Your task to perform on an android device: toggle javascript in the chrome app Image 0: 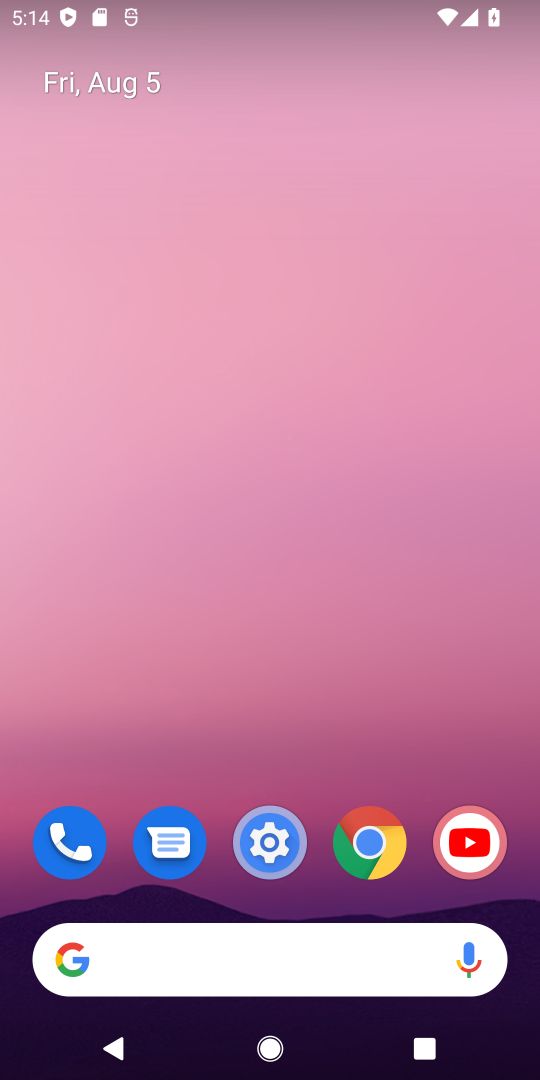
Step 0: press home button
Your task to perform on an android device: toggle javascript in the chrome app Image 1: 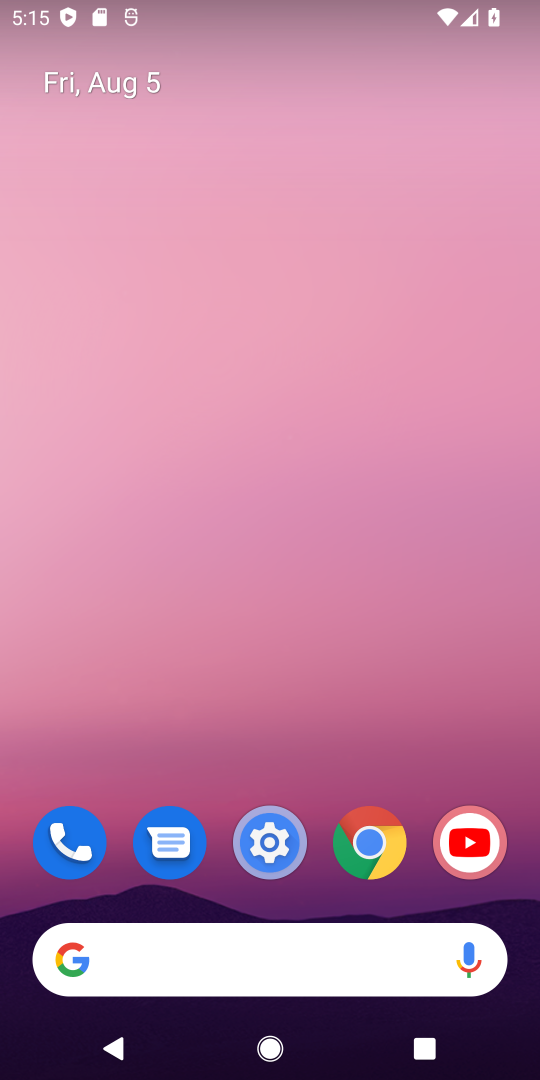
Step 1: click (355, 830)
Your task to perform on an android device: toggle javascript in the chrome app Image 2: 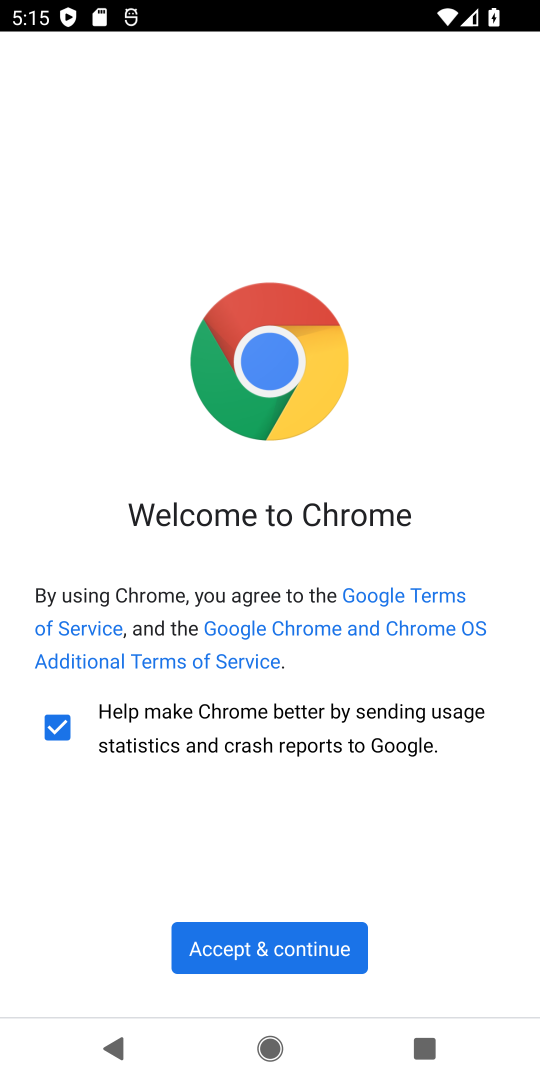
Step 2: click (247, 952)
Your task to perform on an android device: toggle javascript in the chrome app Image 3: 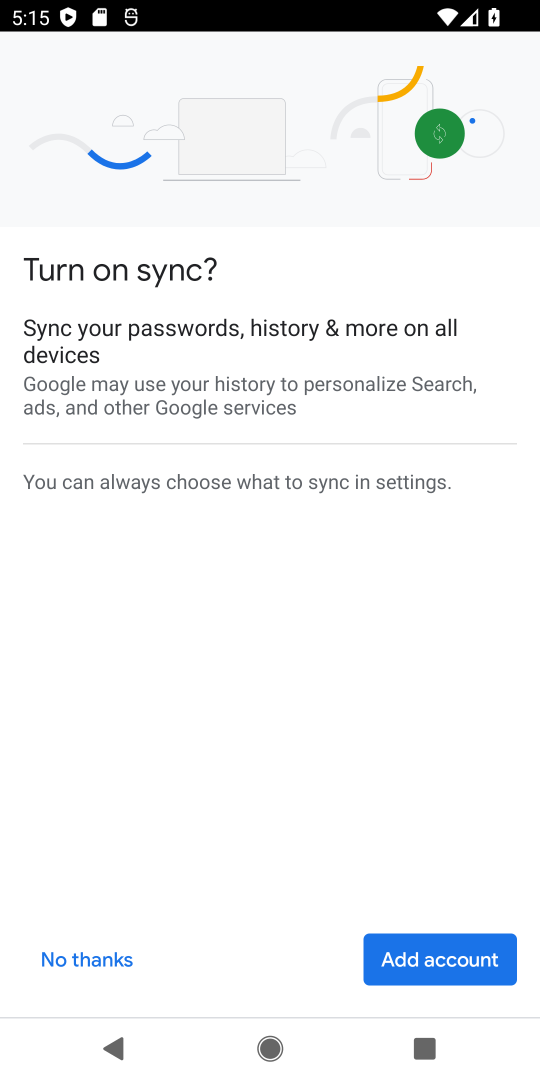
Step 3: click (100, 956)
Your task to perform on an android device: toggle javascript in the chrome app Image 4: 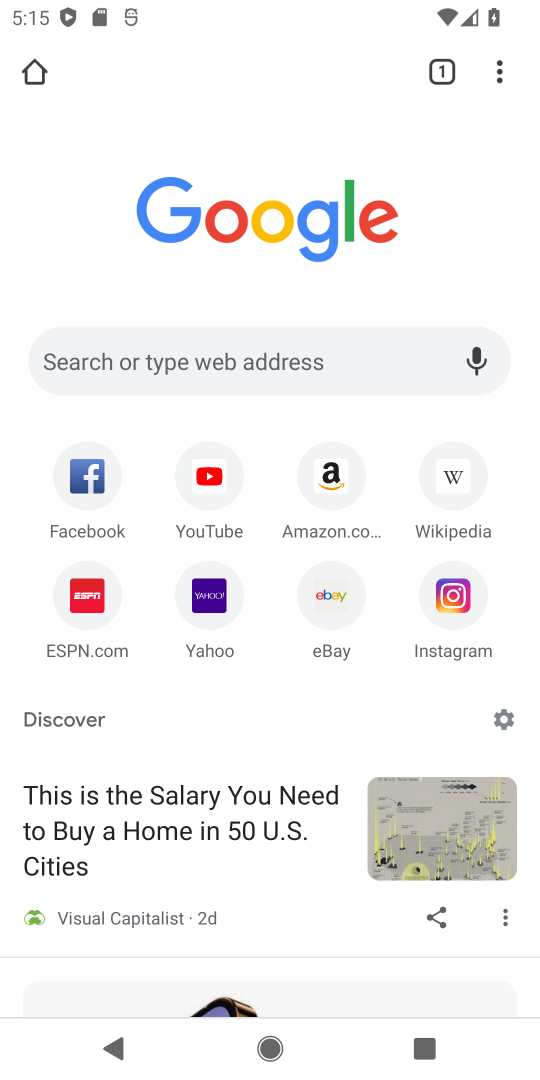
Step 4: drag from (494, 71) to (263, 668)
Your task to perform on an android device: toggle javascript in the chrome app Image 5: 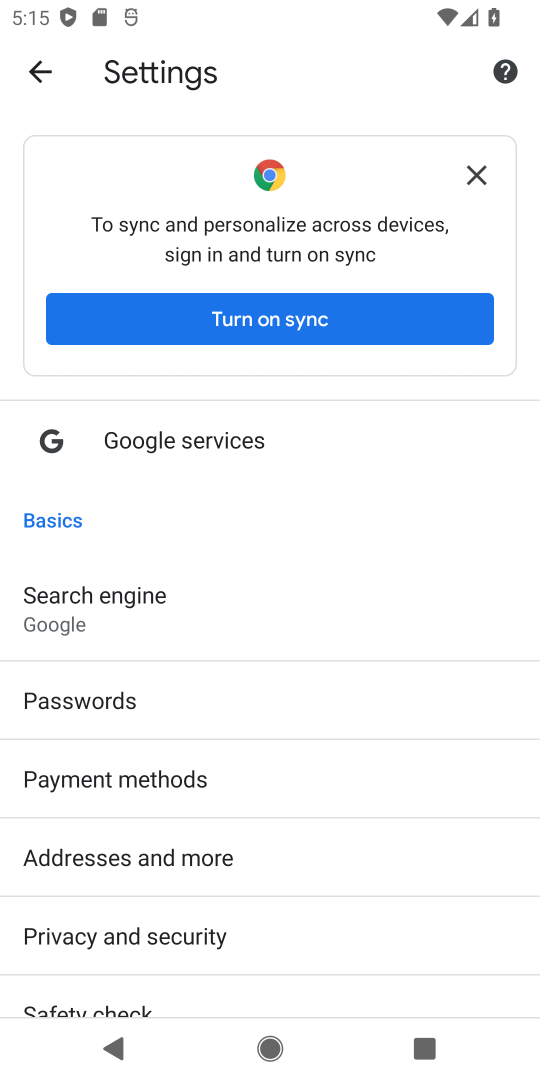
Step 5: drag from (323, 891) to (308, 272)
Your task to perform on an android device: toggle javascript in the chrome app Image 6: 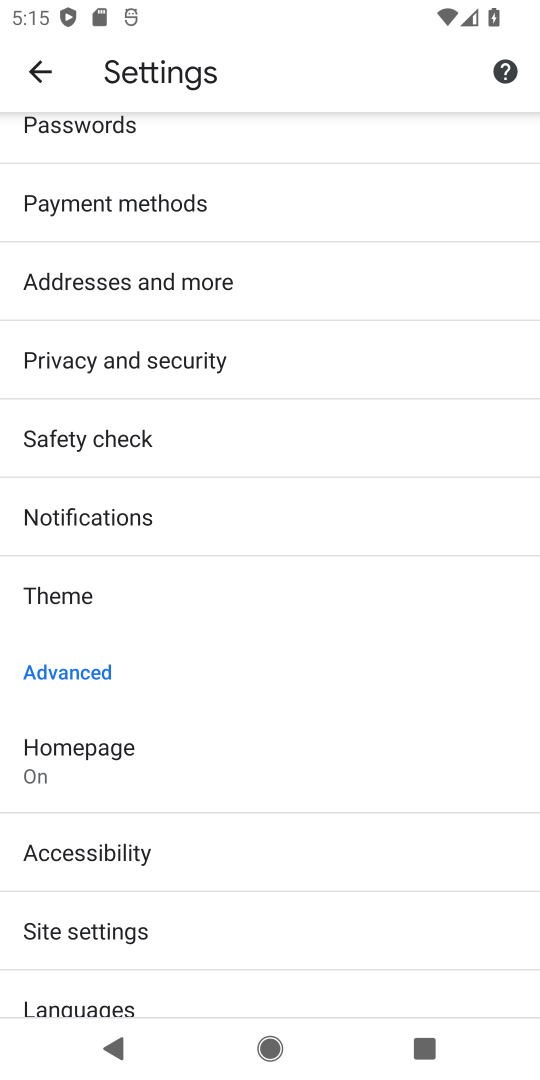
Step 6: click (152, 931)
Your task to perform on an android device: toggle javascript in the chrome app Image 7: 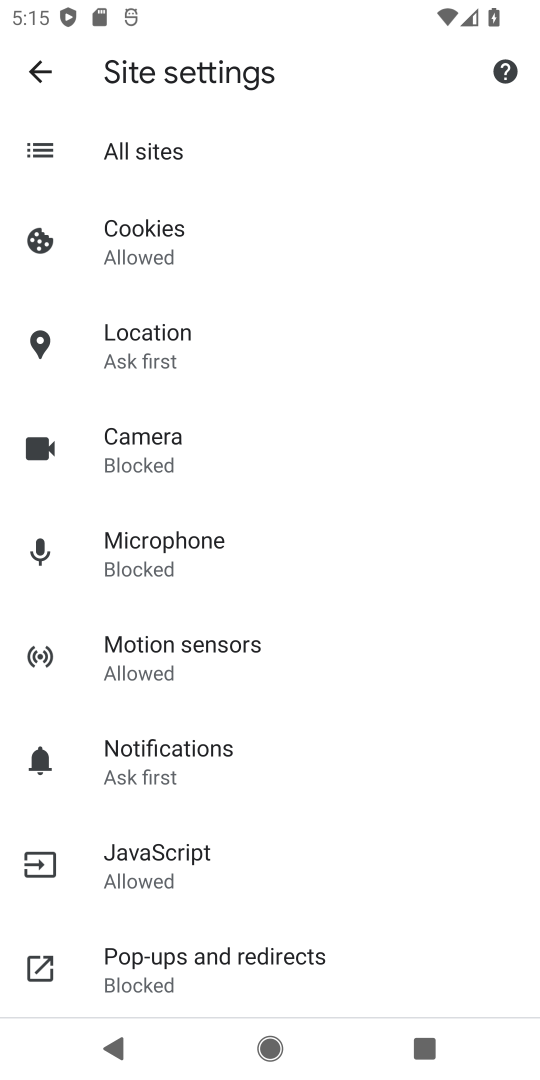
Step 7: click (158, 869)
Your task to perform on an android device: toggle javascript in the chrome app Image 8: 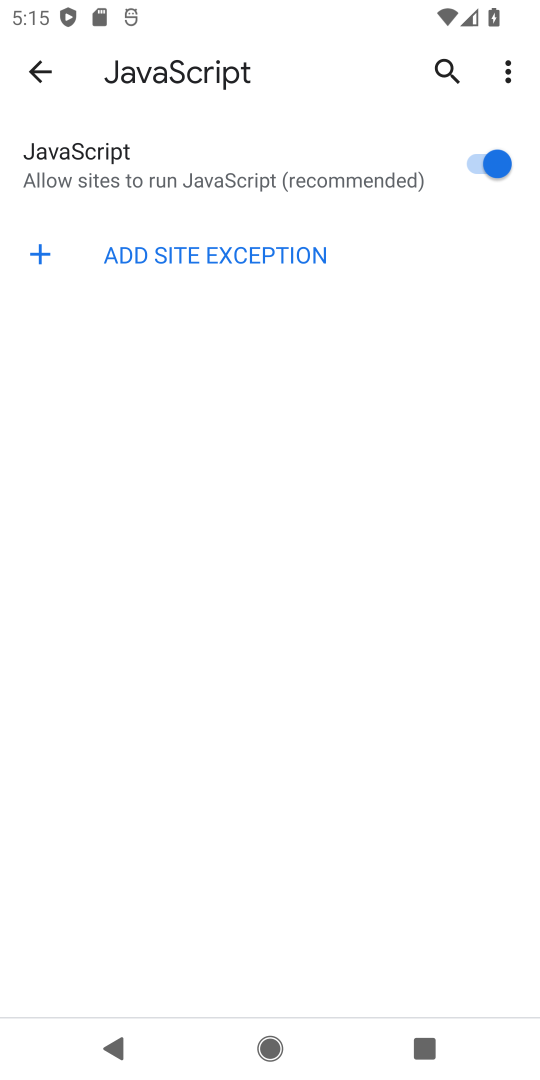
Step 8: click (481, 154)
Your task to perform on an android device: toggle javascript in the chrome app Image 9: 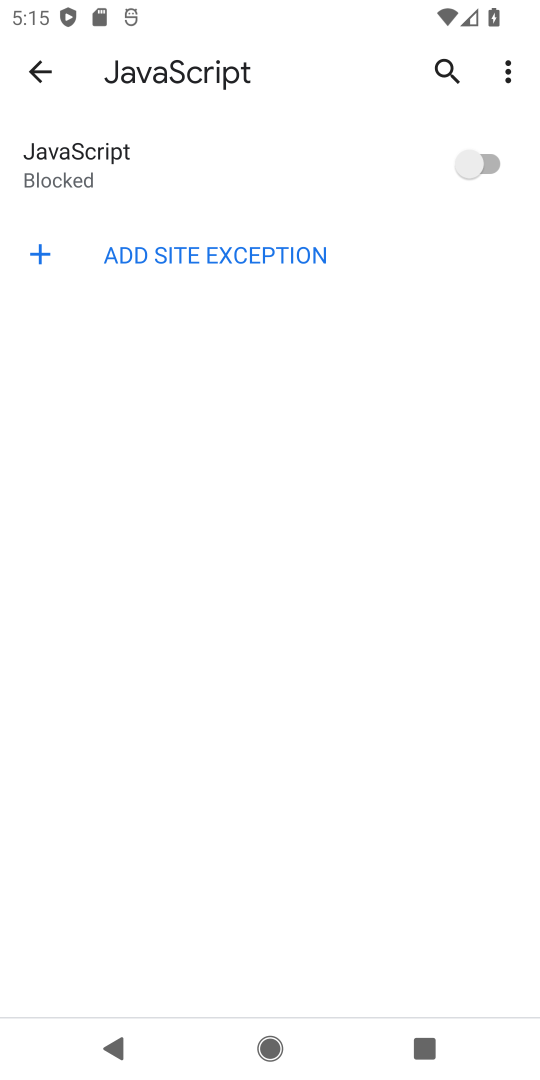
Step 9: task complete